Your task to perform on an android device: Open the web browser Image 0: 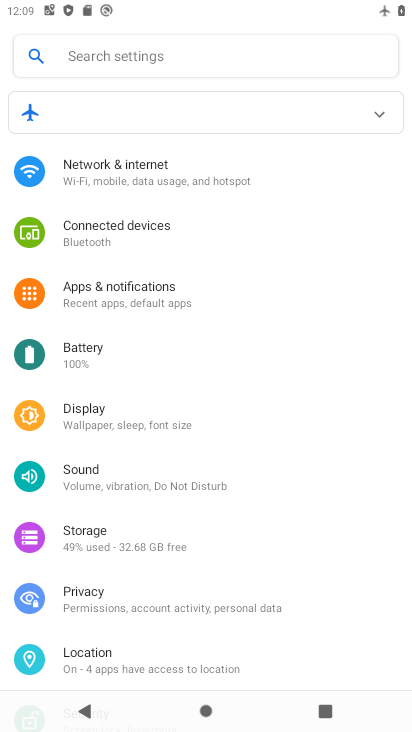
Step 0: press home button
Your task to perform on an android device: Open the web browser Image 1: 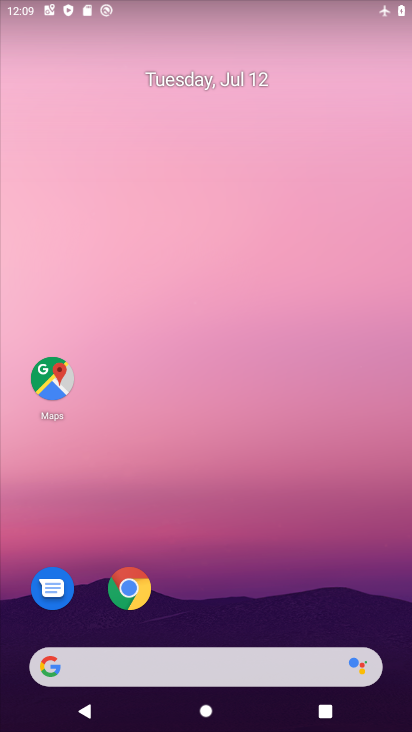
Step 1: click (132, 589)
Your task to perform on an android device: Open the web browser Image 2: 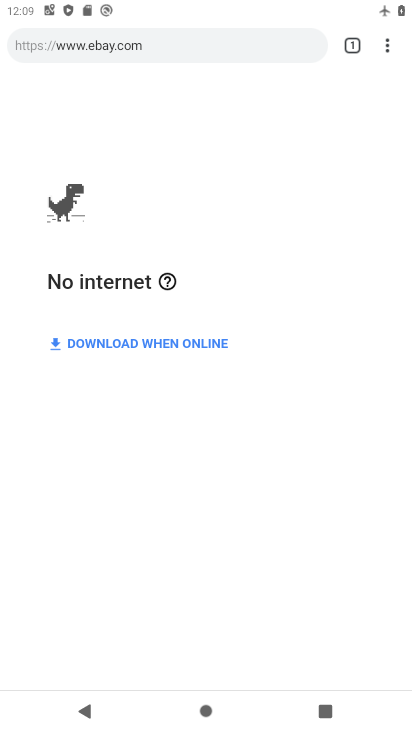
Step 2: task complete